Your task to perform on an android device: find photos in the google photos app Image 0: 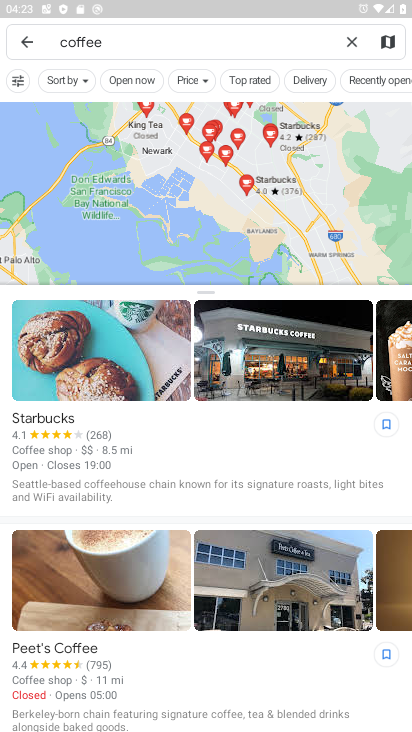
Step 0: press home button
Your task to perform on an android device: find photos in the google photos app Image 1: 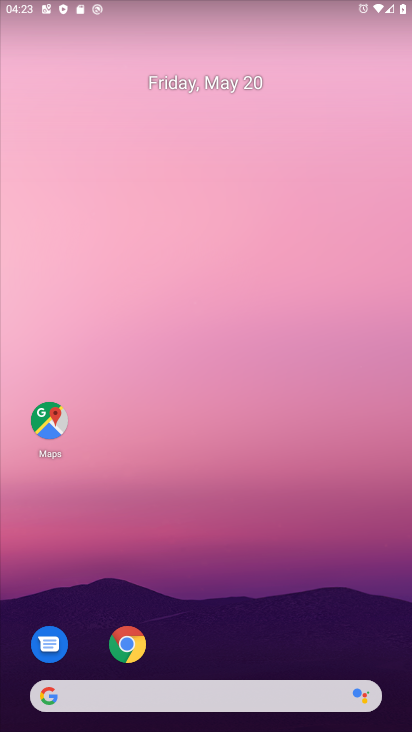
Step 1: drag from (269, 623) to (160, 43)
Your task to perform on an android device: find photos in the google photos app Image 2: 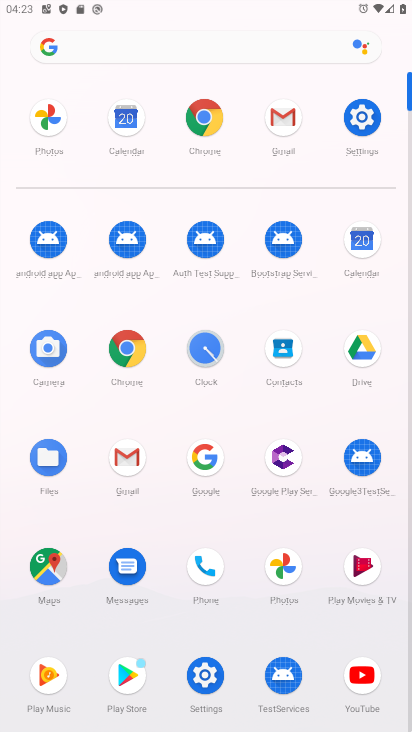
Step 2: click (275, 597)
Your task to perform on an android device: find photos in the google photos app Image 3: 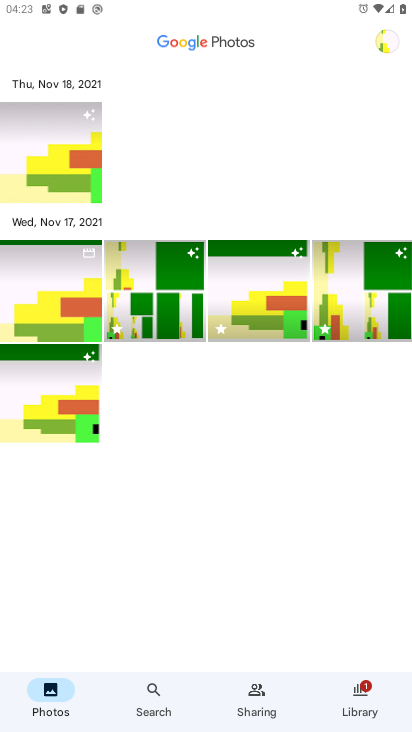
Step 3: click (358, 702)
Your task to perform on an android device: find photos in the google photos app Image 4: 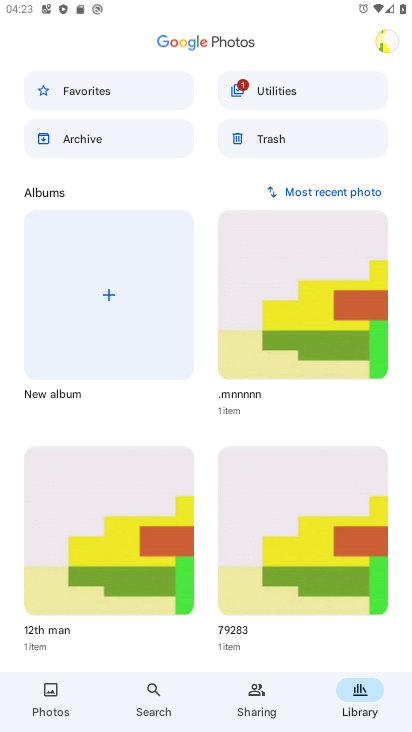
Step 4: click (57, 134)
Your task to perform on an android device: find photos in the google photos app Image 5: 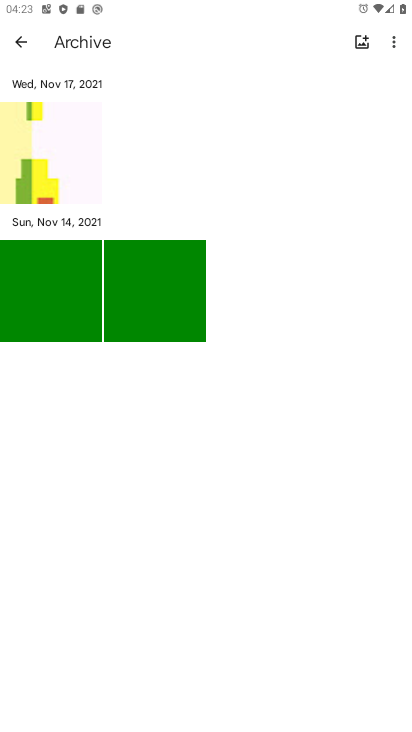
Step 5: task complete